Your task to perform on an android device: snooze an email in the gmail app Image 0: 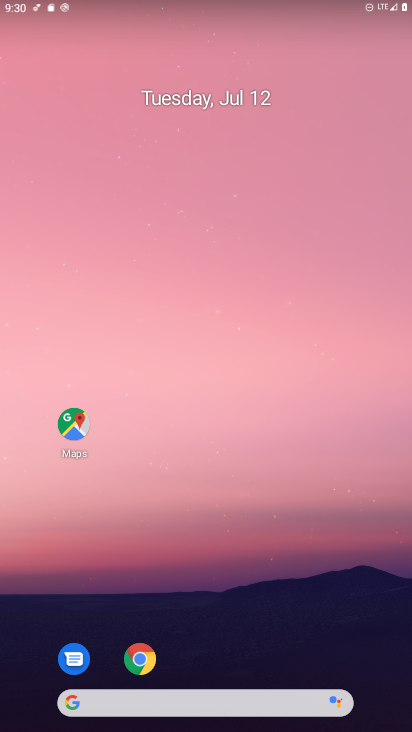
Step 0: drag from (179, 702) to (297, 157)
Your task to perform on an android device: snooze an email in the gmail app Image 1: 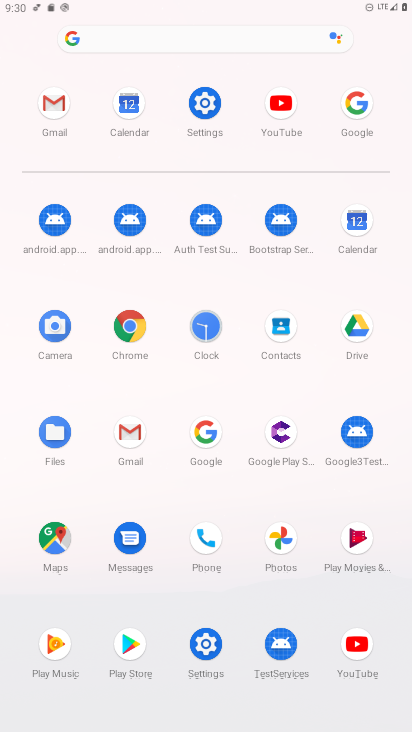
Step 1: click (52, 102)
Your task to perform on an android device: snooze an email in the gmail app Image 2: 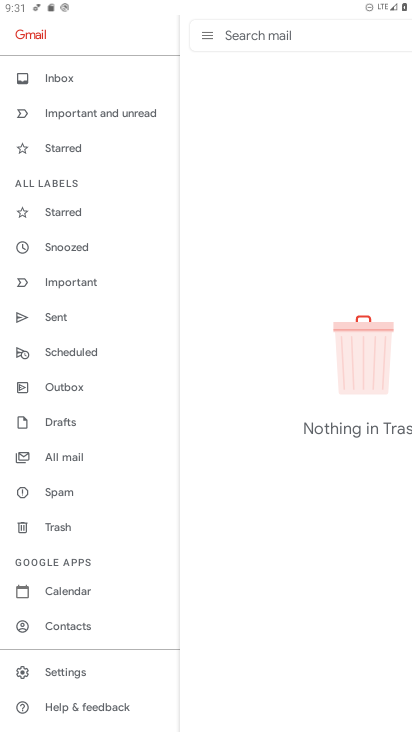
Step 2: click (55, 83)
Your task to perform on an android device: snooze an email in the gmail app Image 3: 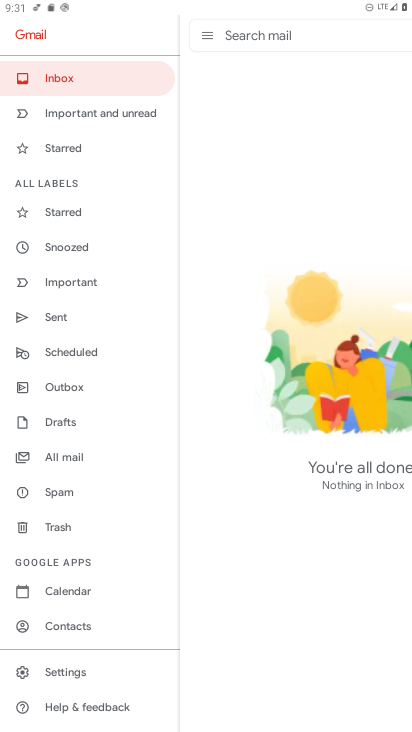
Step 3: click (84, 119)
Your task to perform on an android device: snooze an email in the gmail app Image 4: 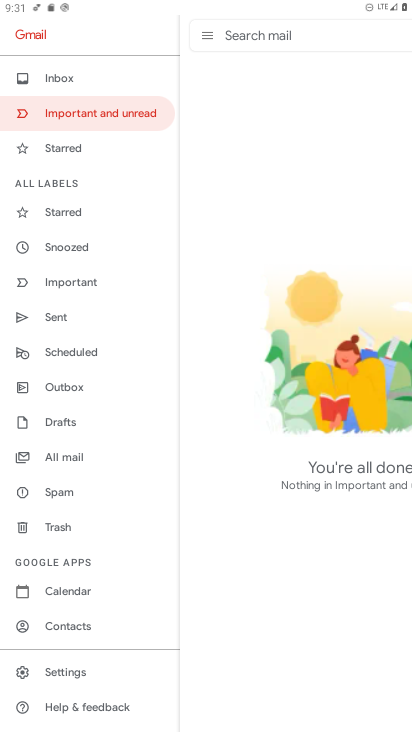
Step 4: click (64, 157)
Your task to perform on an android device: snooze an email in the gmail app Image 5: 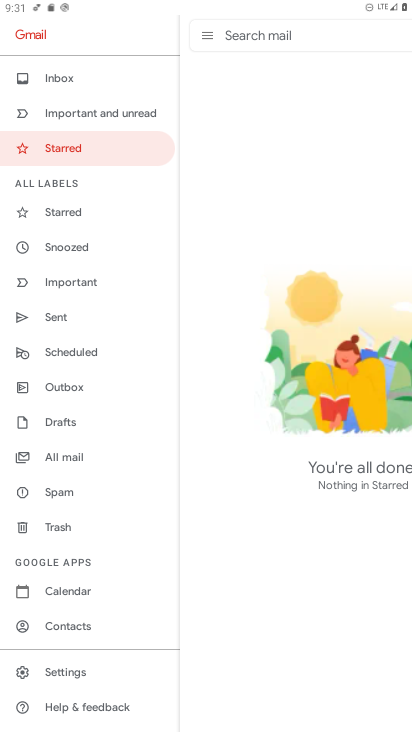
Step 5: click (57, 208)
Your task to perform on an android device: snooze an email in the gmail app Image 6: 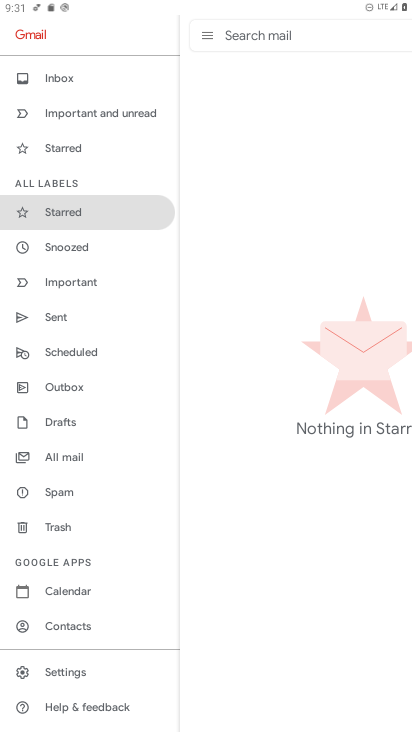
Step 6: click (57, 246)
Your task to perform on an android device: snooze an email in the gmail app Image 7: 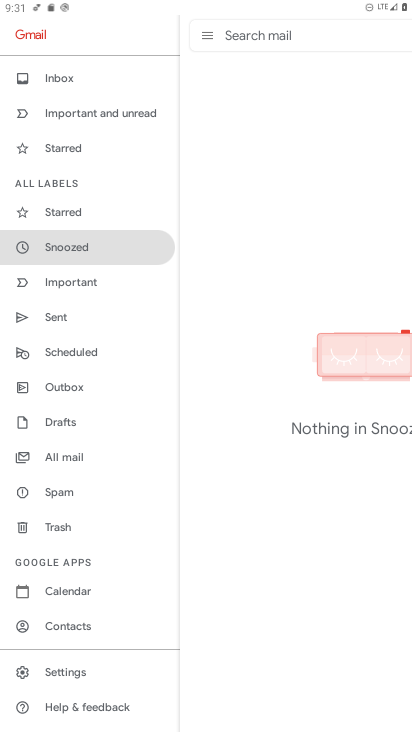
Step 7: click (61, 285)
Your task to perform on an android device: snooze an email in the gmail app Image 8: 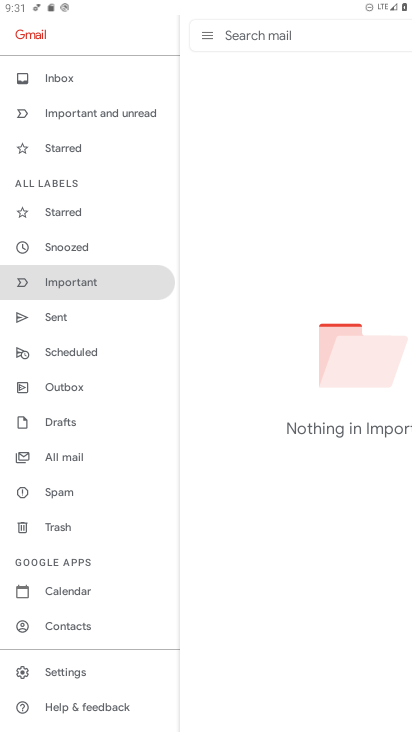
Step 8: click (55, 319)
Your task to perform on an android device: snooze an email in the gmail app Image 9: 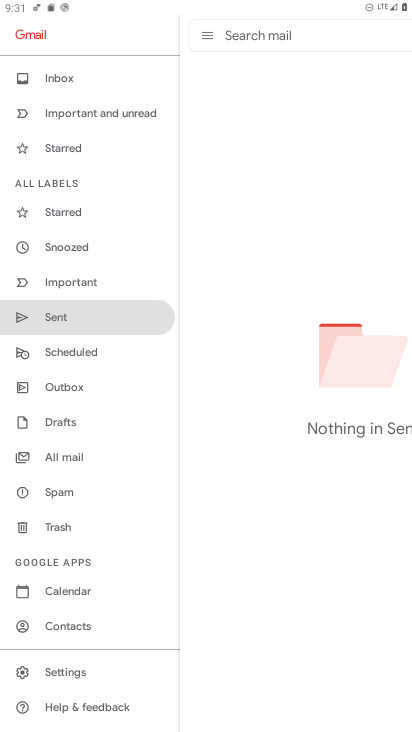
Step 9: click (61, 350)
Your task to perform on an android device: snooze an email in the gmail app Image 10: 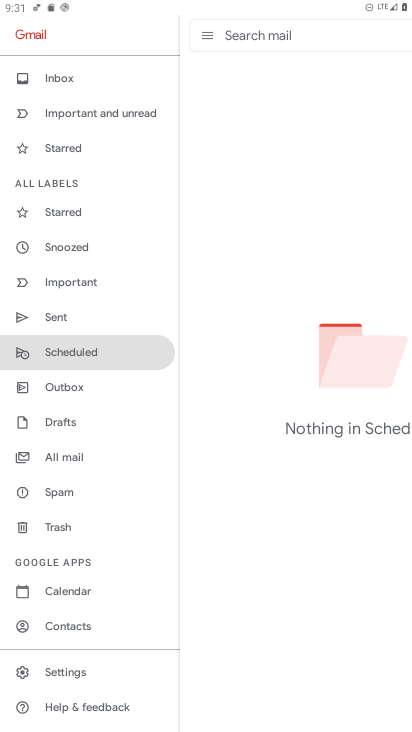
Step 10: click (49, 383)
Your task to perform on an android device: snooze an email in the gmail app Image 11: 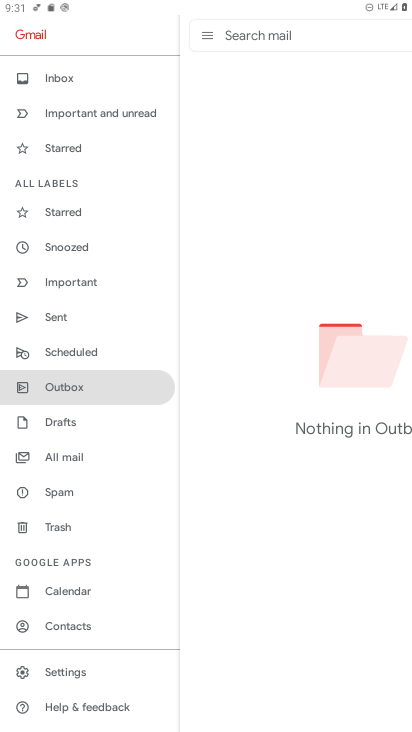
Step 11: click (54, 417)
Your task to perform on an android device: snooze an email in the gmail app Image 12: 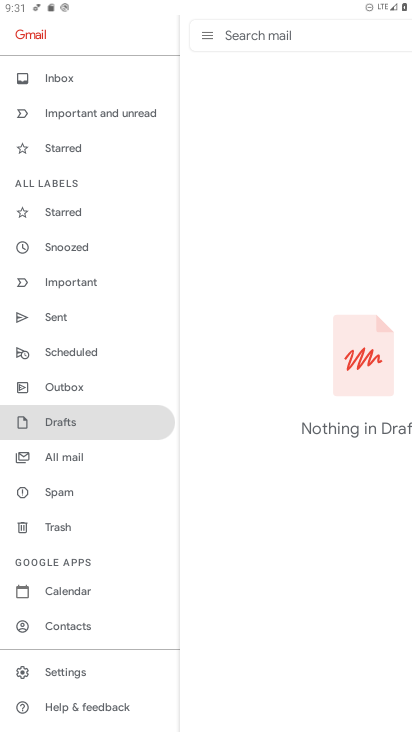
Step 12: click (60, 451)
Your task to perform on an android device: snooze an email in the gmail app Image 13: 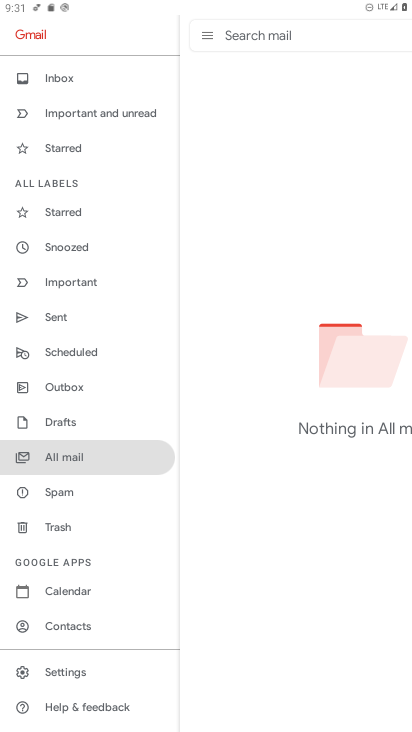
Step 13: click (70, 504)
Your task to perform on an android device: snooze an email in the gmail app Image 14: 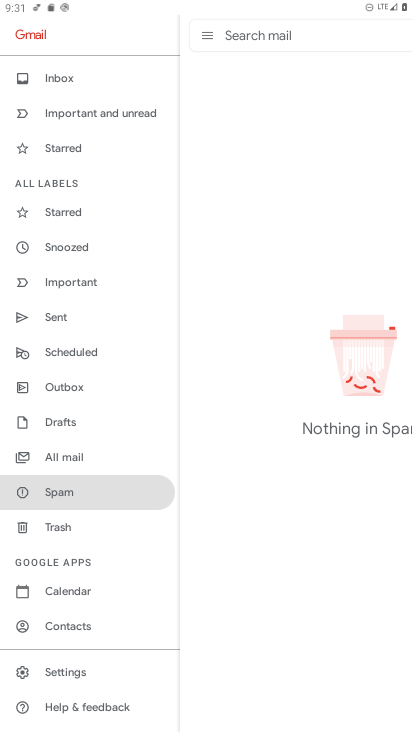
Step 14: click (64, 528)
Your task to perform on an android device: snooze an email in the gmail app Image 15: 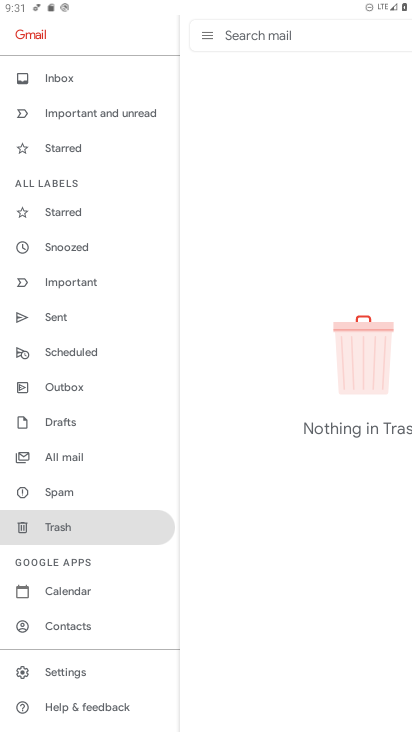
Step 15: task complete